Your task to perform on an android device: turn off javascript in the chrome app Image 0: 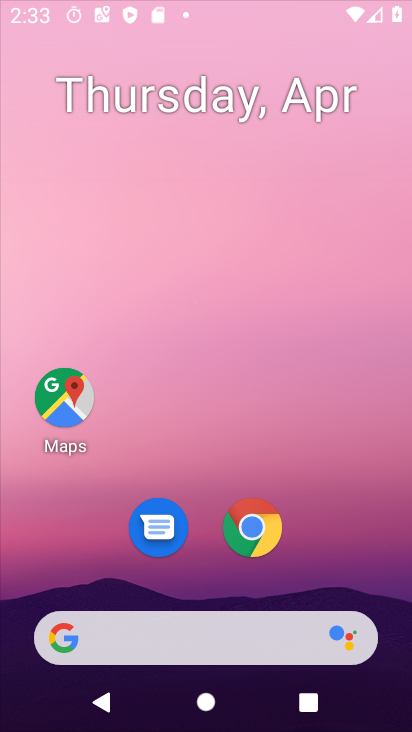
Step 0: click (299, 76)
Your task to perform on an android device: turn off javascript in the chrome app Image 1: 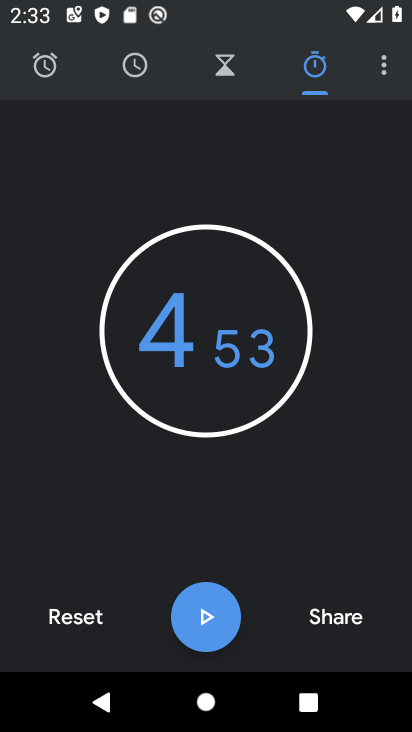
Step 1: press home button
Your task to perform on an android device: turn off javascript in the chrome app Image 2: 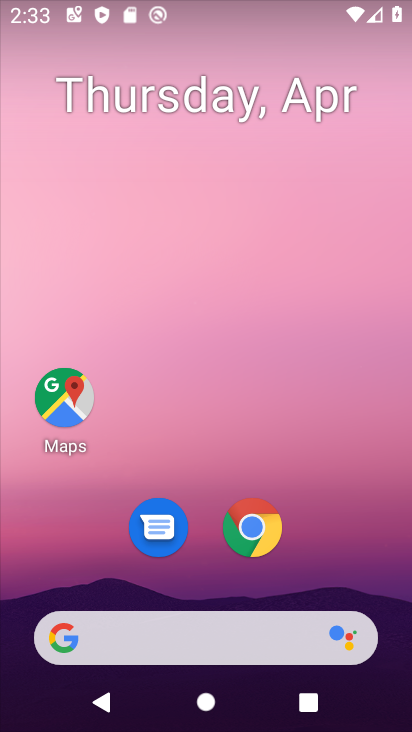
Step 2: click (255, 551)
Your task to perform on an android device: turn off javascript in the chrome app Image 3: 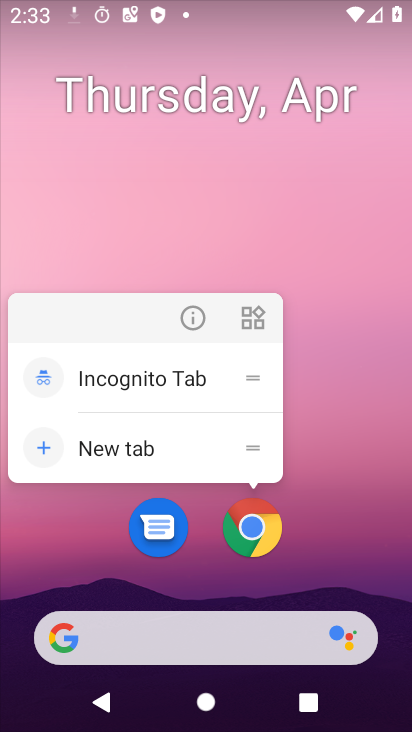
Step 3: click (255, 551)
Your task to perform on an android device: turn off javascript in the chrome app Image 4: 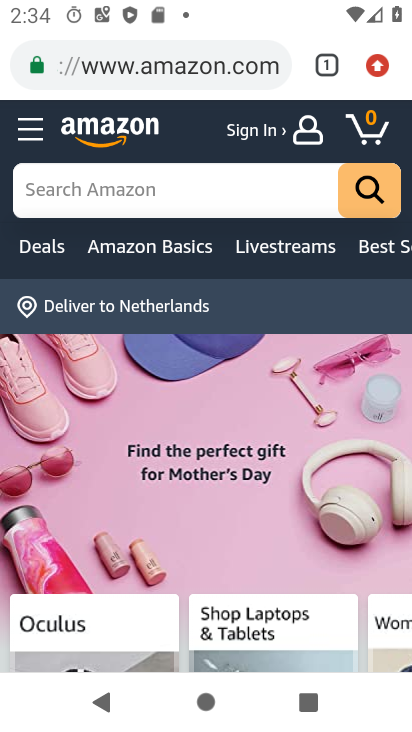
Step 4: click (396, 67)
Your task to perform on an android device: turn off javascript in the chrome app Image 5: 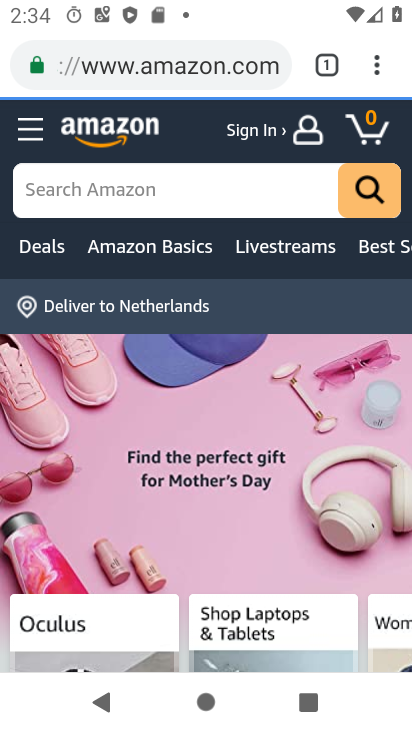
Step 5: drag from (374, 63) to (177, 579)
Your task to perform on an android device: turn off javascript in the chrome app Image 6: 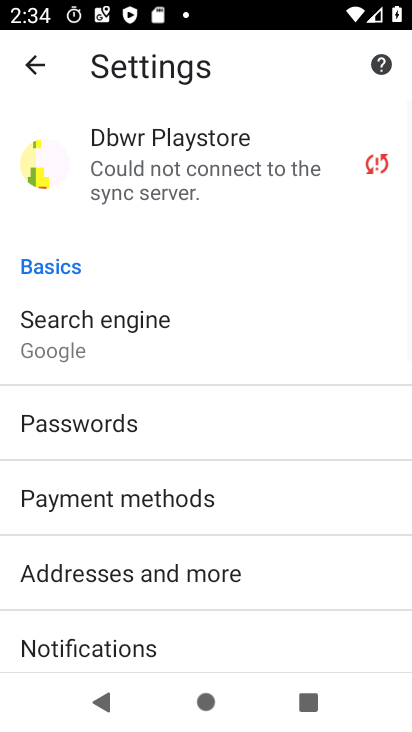
Step 6: drag from (268, 570) to (312, 177)
Your task to perform on an android device: turn off javascript in the chrome app Image 7: 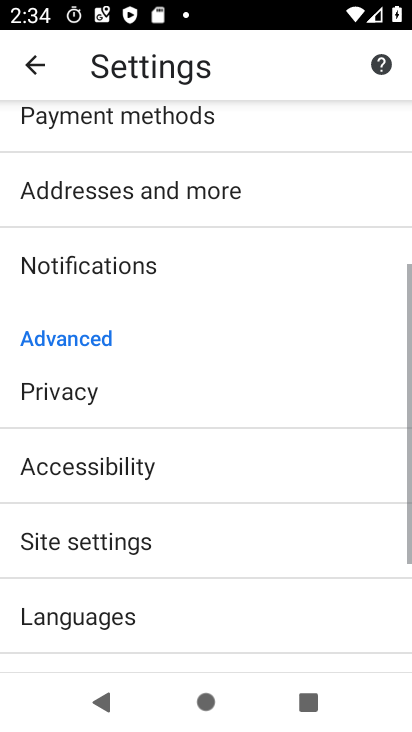
Step 7: click (105, 543)
Your task to perform on an android device: turn off javascript in the chrome app Image 8: 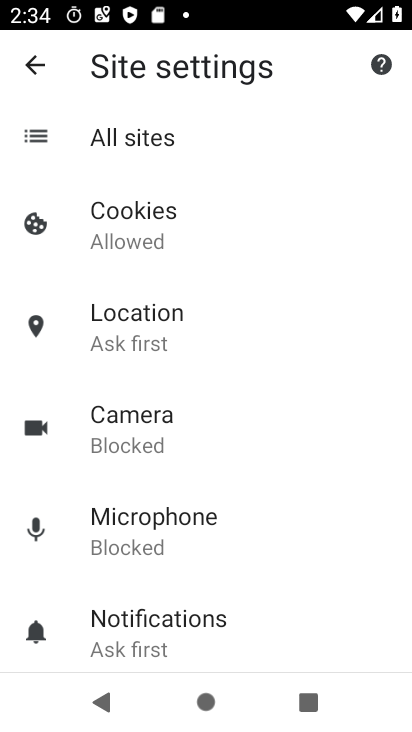
Step 8: drag from (156, 540) to (254, 187)
Your task to perform on an android device: turn off javascript in the chrome app Image 9: 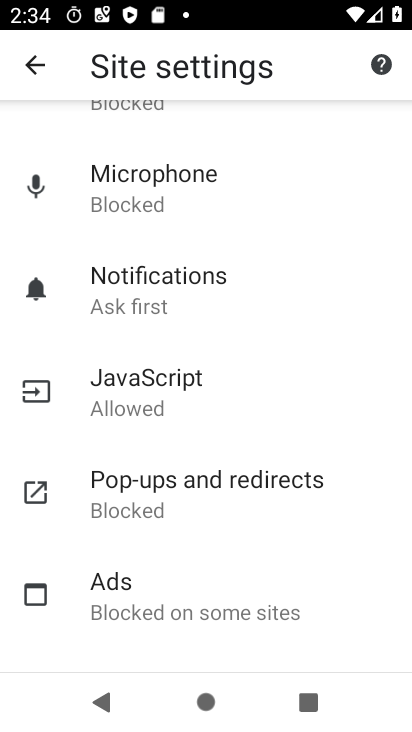
Step 9: click (172, 395)
Your task to perform on an android device: turn off javascript in the chrome app Image 10: 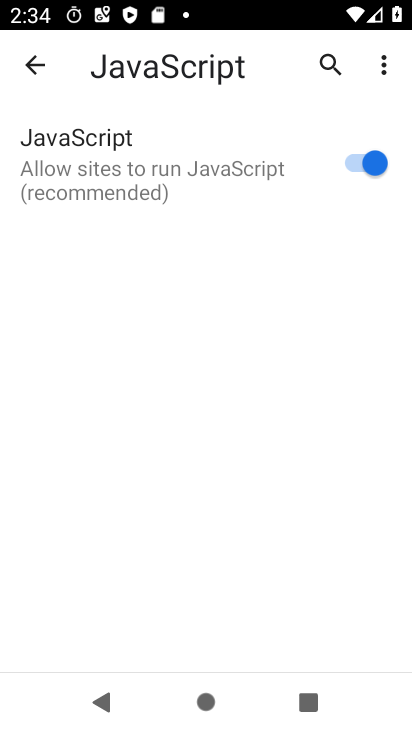
Step 10: click (356, 163)
Your task to perform on an android device: turn off javascript in the chrome app Image 11: 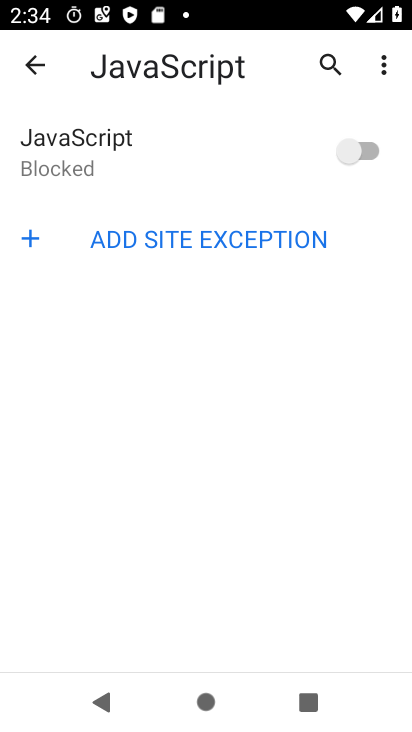
Step 11: task complete